Your task to perform on an android device: Show me productivity apps on the Play Store Image 0: 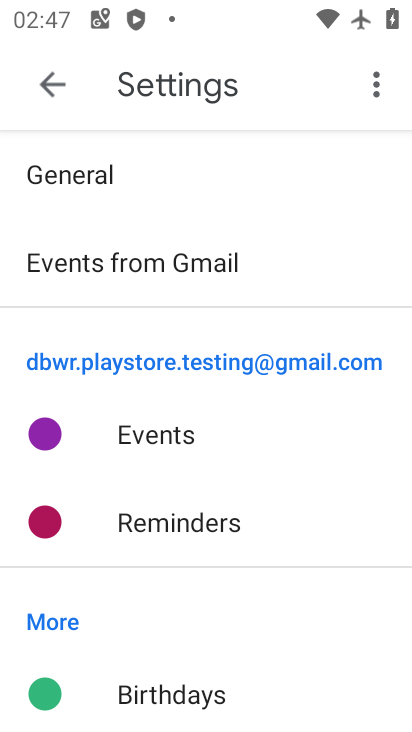
Step 0: press home button
Your task to perform on an android device: Show me productivity apps on the Play Store Image 1: 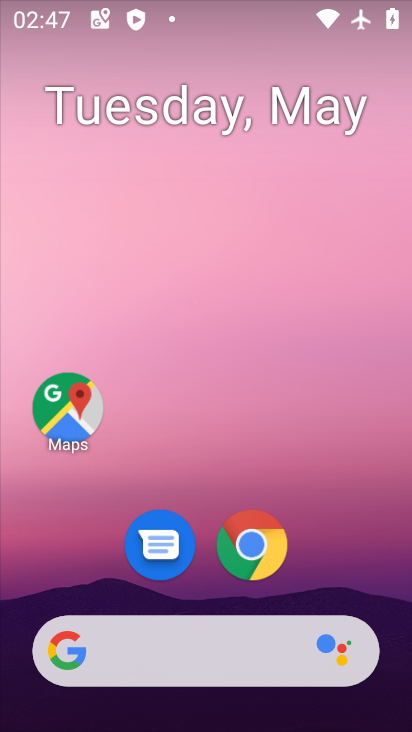
Step 1: drag from (393, 636) to (335, 101)
Your task to perform on an android device: Show me productivity apps on the Play Store Image 2: 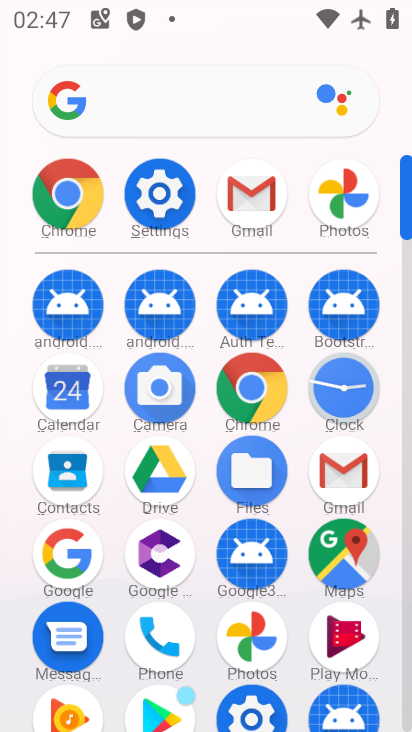
Step 2: click (409, 706)
Your task to perform on an android device: Show me productivity apps on the Play Store Image 3: 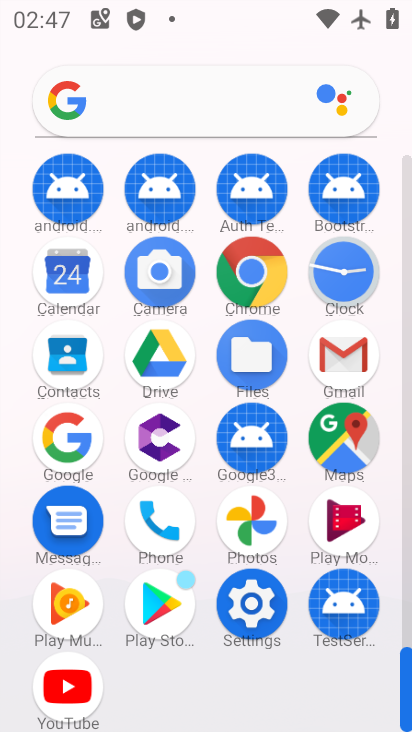
Step 3: click (169, 599)
Your task to perform on an android device: Show me productivity apps on the Play Store Image 4: 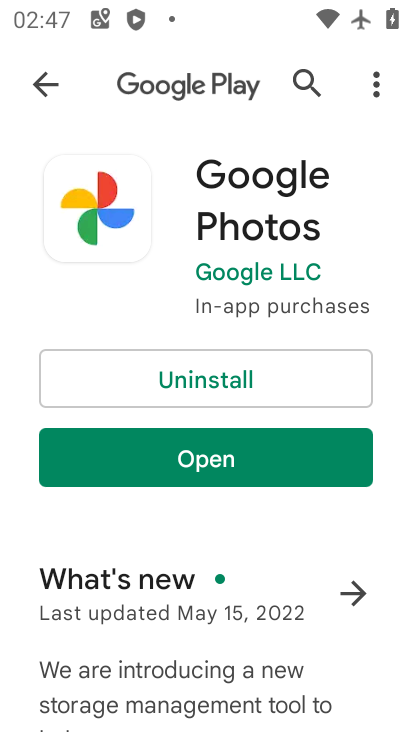
Step 4: press back button
Your task to perform on an android device: Show me productivity apps on the Play Store Image 5: 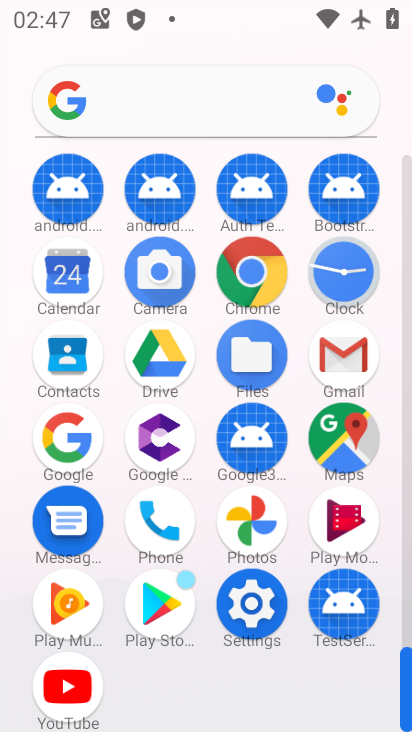
Step 5: click (167, 604)
Your task to perform on an android device: Show me productivity apps on the Play Store Image 6: 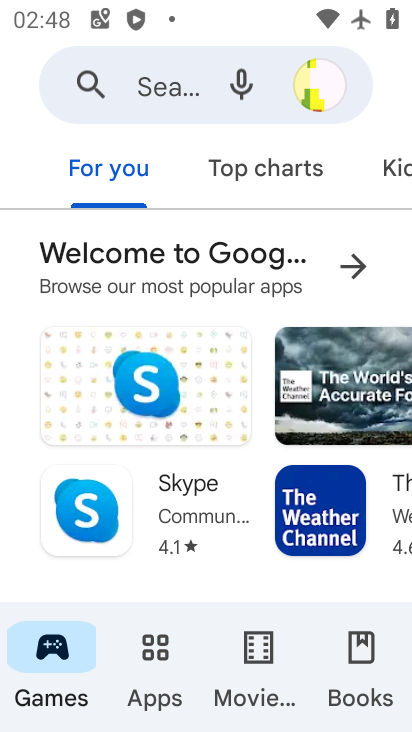
Step 6: click (157, 666)
Your task to perform on an android device: Show me productivity apps on the Play Store Image 7: 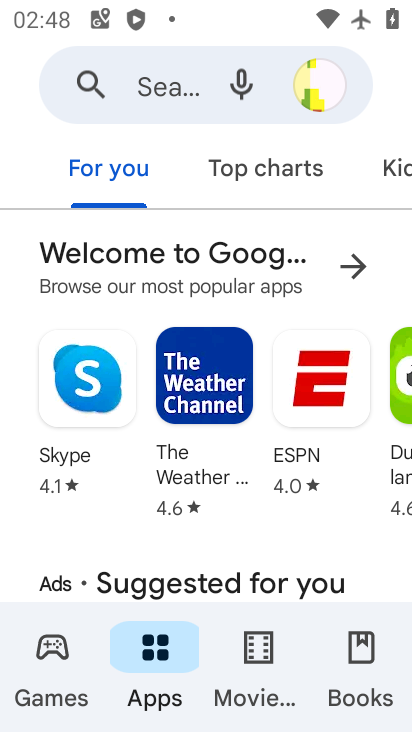
Step 7: drag from (394, 185) to (137, 202)
Your task to perform on an android device: Show me productivity apps on the Play Store Image 8: 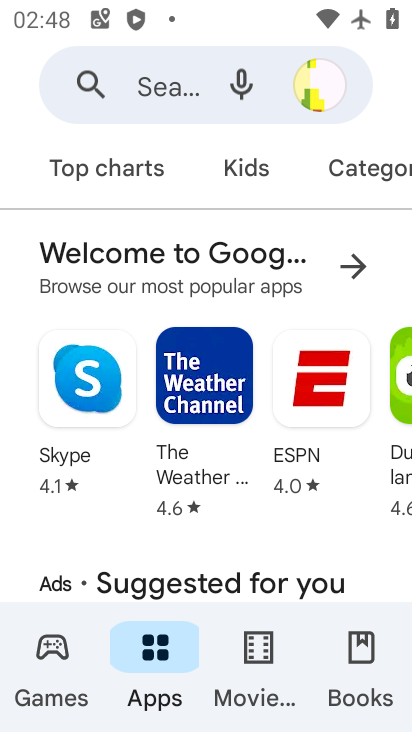
Step 8: click (349, 165)
Your task to perform on an android device: Show me productivity apps on the Play Store Image 9: 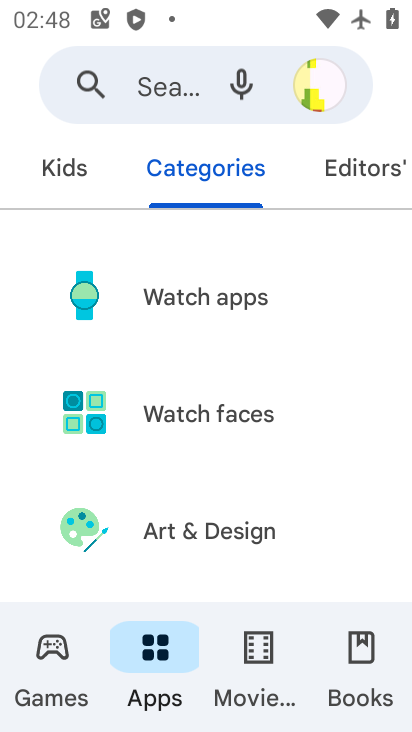
Step 9: drag from (237, 540) to (207, 68)
Your task to perform on an android device: Show me productivity apps on the Play Store Image 10: 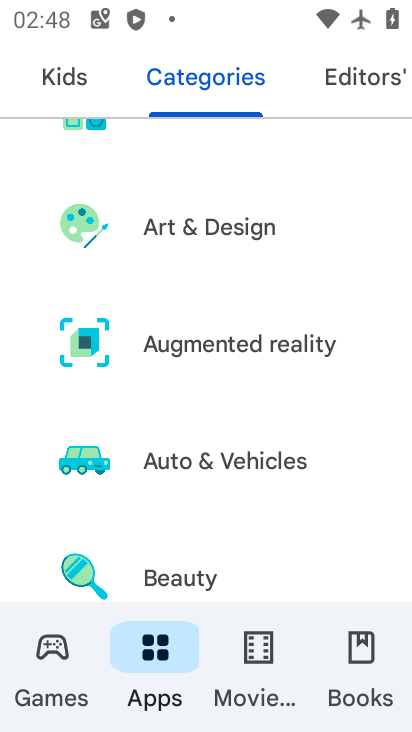
Step 10: drag from (252, 565) to (250, 112)
Your task to perform on an android device: Show me productivity apps on the Play Store Image 11: 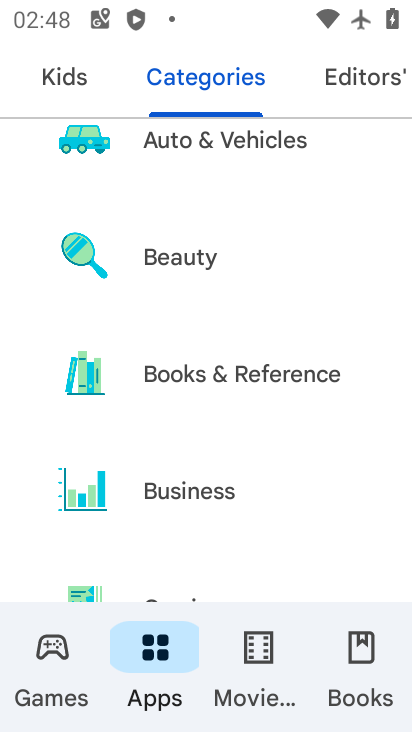
Step 11: drag from (287, 487) to (266, 113)
Your task to perform on an android device: Show me productivity apps on the Play Store Image 12: 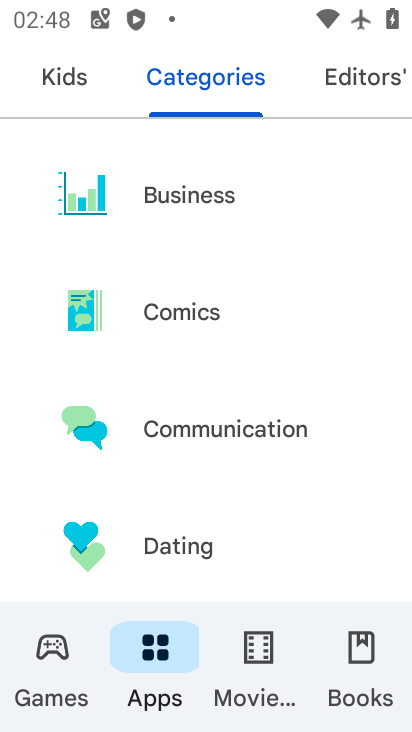
Step 12: drag from (283, 515) to (280, 124)
Your task to perform on an android device: Show me productivity apps on the Play Store Image 13: 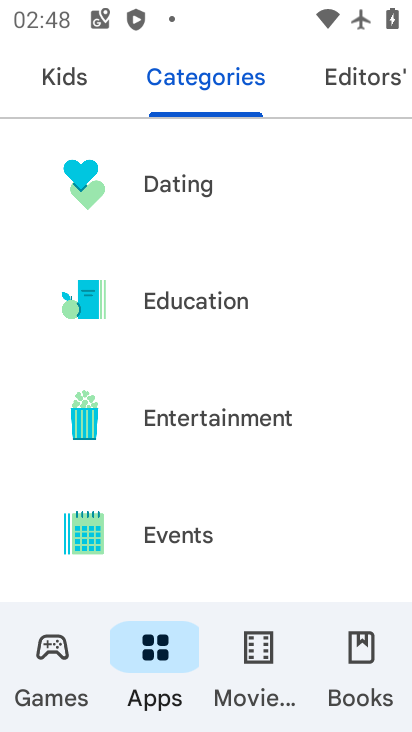
Step 13: drag from (267, 547) to (272, 172)
Your task to perform on an android device: Show me productivity apps on the Play Store Image 14: 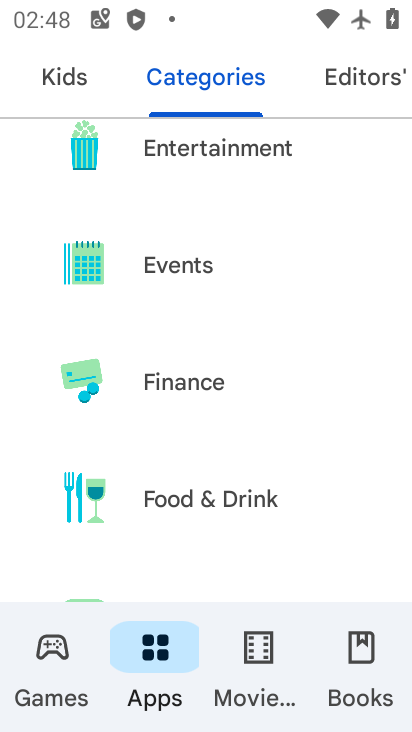
Step 14: drag from (248, 553) to (270, 121)
Your task to perform on an android device: Show me productivity apps on the Play Store Image 15: 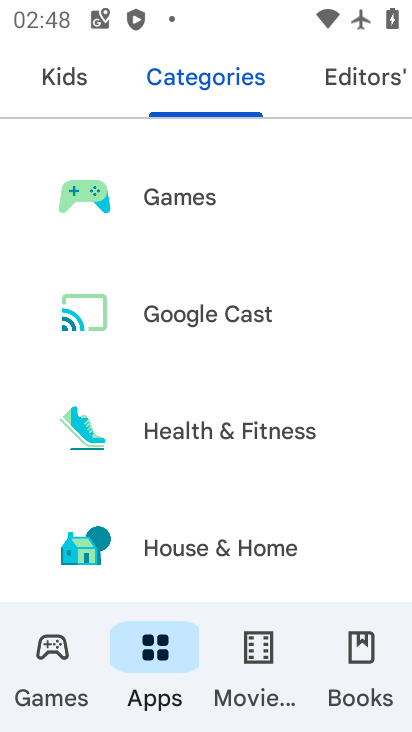
Step 15: drag from (302, 556) to (303, 107)
Your task to perform on an android device: Show me productivity apps on the Play Store Image 16: 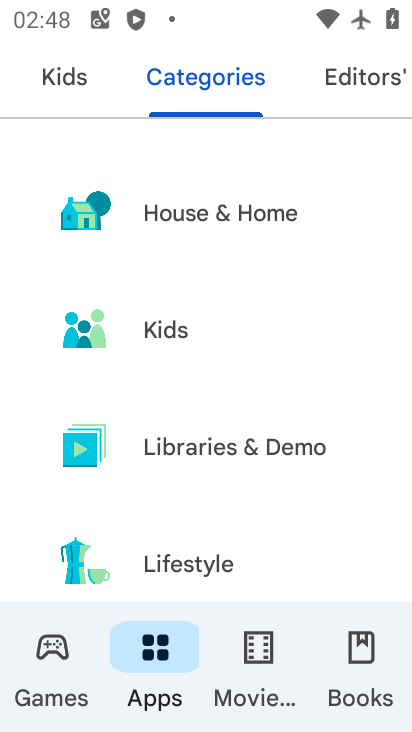
Step 16: drag from (317, 555) to (302, 124)
Your task to perform on an android device: Show me productivity apps on the Play Store Image 17: 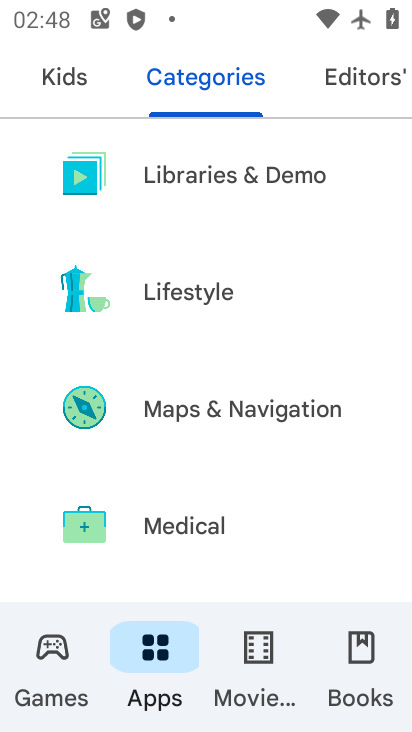
Step 17: drag from (299, 536) to (302, 73)
Your task to perform on an android device: Show me productivity apps on the Play Store Image 18: 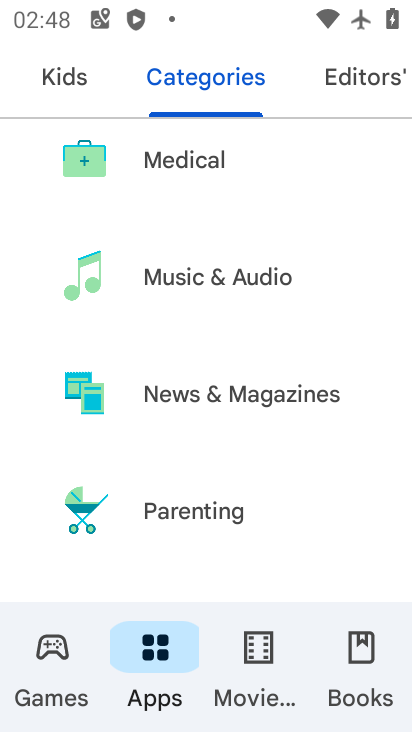
Step 18: drag from (300, 493) to (260, 60)
Your task to perform on an android device: Show me productivity apps on the Play Store Image 19: 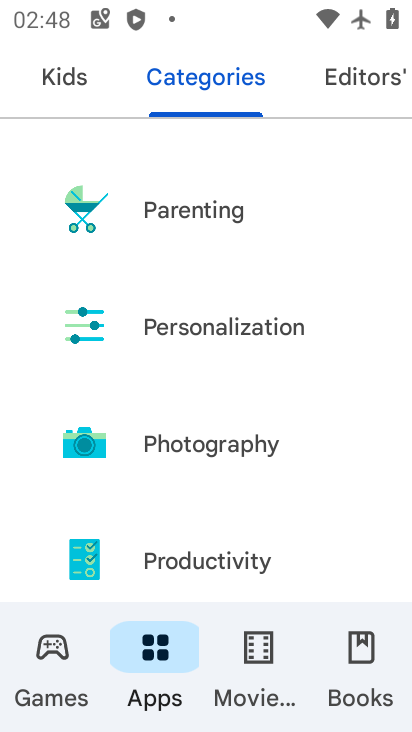
Step 19: click (191, 555)
Your task to perform on an android device: Show me productivity apps on the Play Store Image 20: 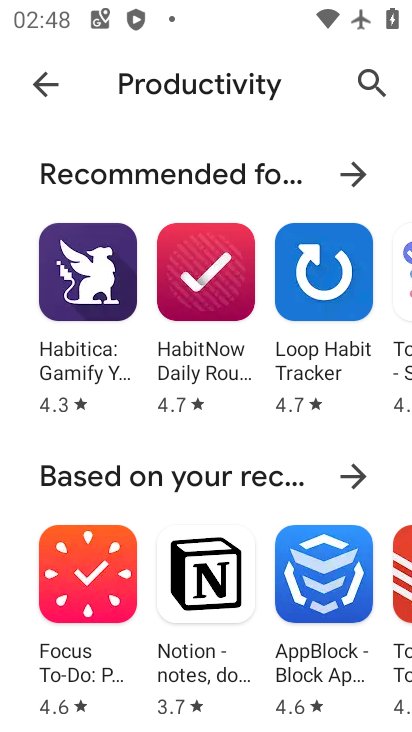
Step 20: drag from (324, 467) to (271, 77)
Your task to perform on an android device: Show me productivity apps on the Play Store Image 21: 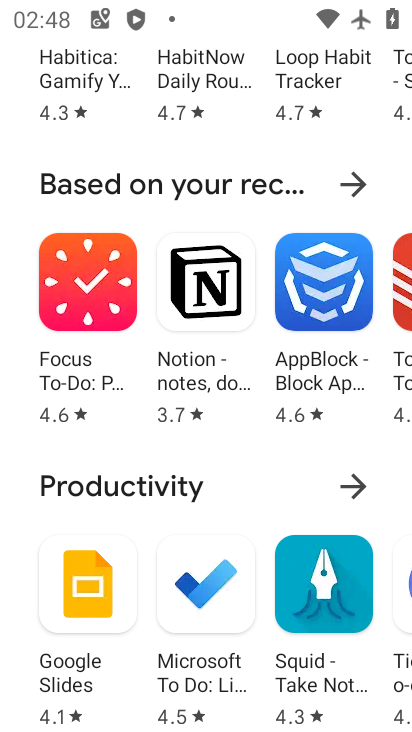
Step 21: click (355, 485)
Your task to perform on an android device: Show me productivity apps on the Play Store Image 22: 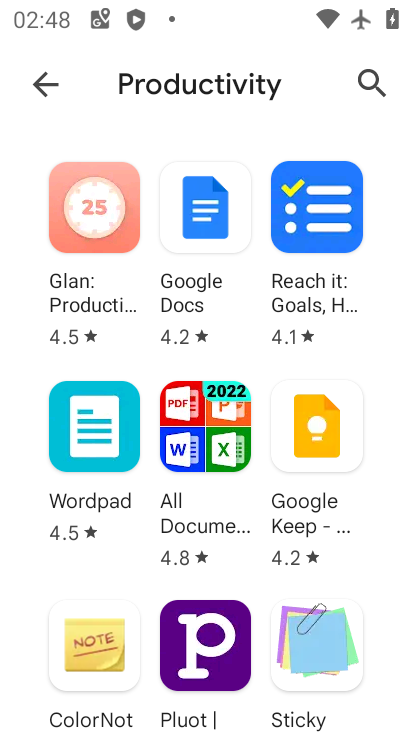
Step 22: task complete